Your task to perform on an android device: What's the weather going to be this weekend? Image 0: 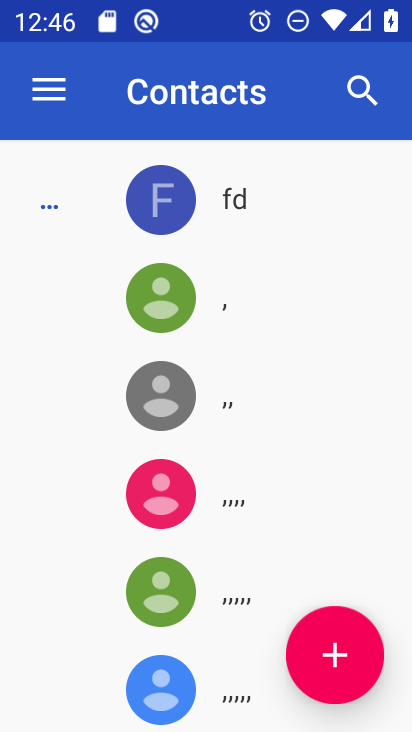
Step 0: press home button
Your task to perform on an android device: What's the weather going to be this weekend? Image 1: 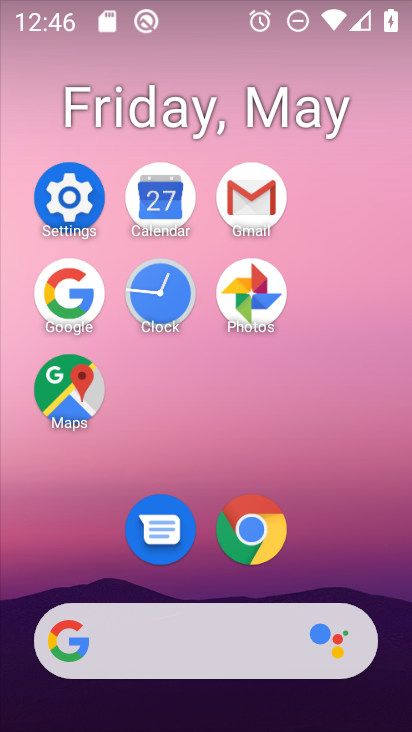
Step 1: click (66, 316)
Your task to perform on an android device: What's the weather going to be this weekend? Image 2: 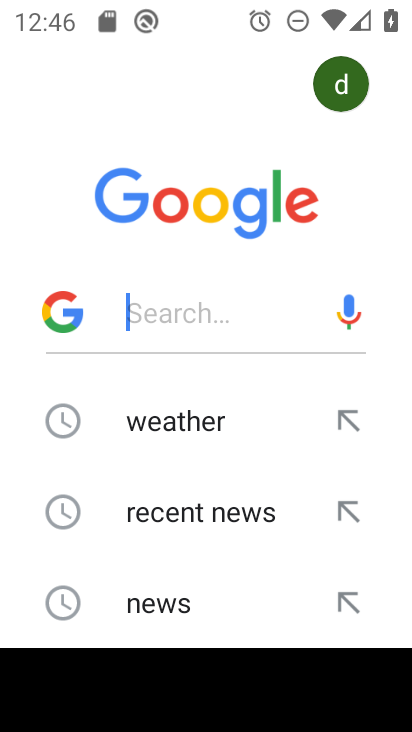
Step 2: click (171, 427)
Your task to perform on an android device: What's the weather going to be this weekend? Image 3: 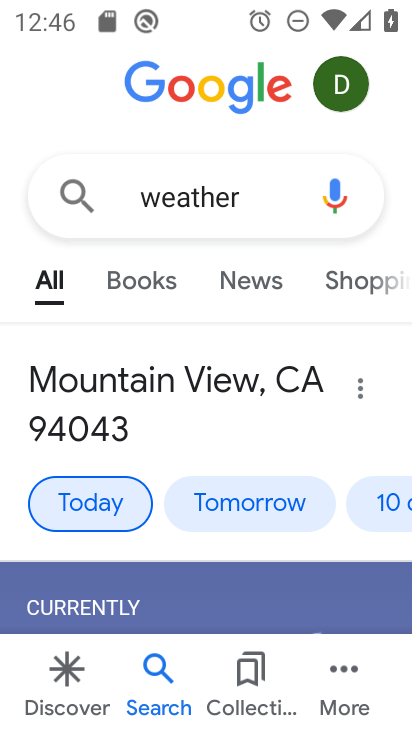
Step 3: click (392, 509)
Your task to perform on an android device: What's the weather going to be this weekend? Image 4: 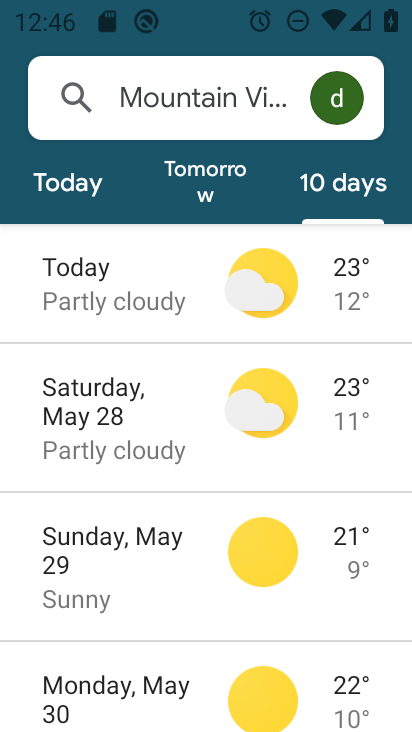
Step 4: click (124, 426)
Your task to perform on an android device: What's the weather going to be this weekend? Image 5: 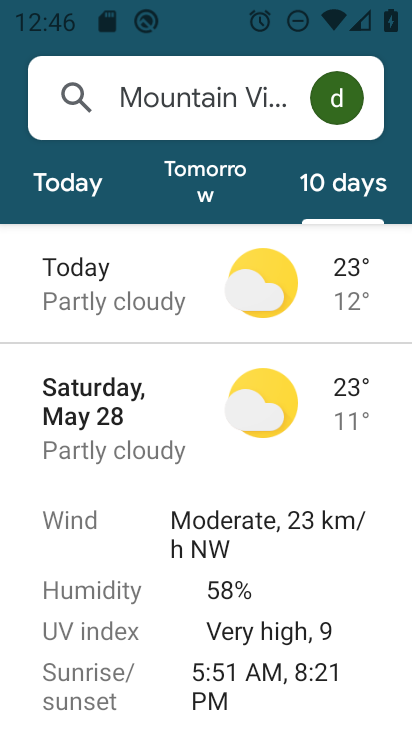
Step 5: task complete